Your task to perform on an android device: Open calendar and show me the fourth week of next month Image 0: 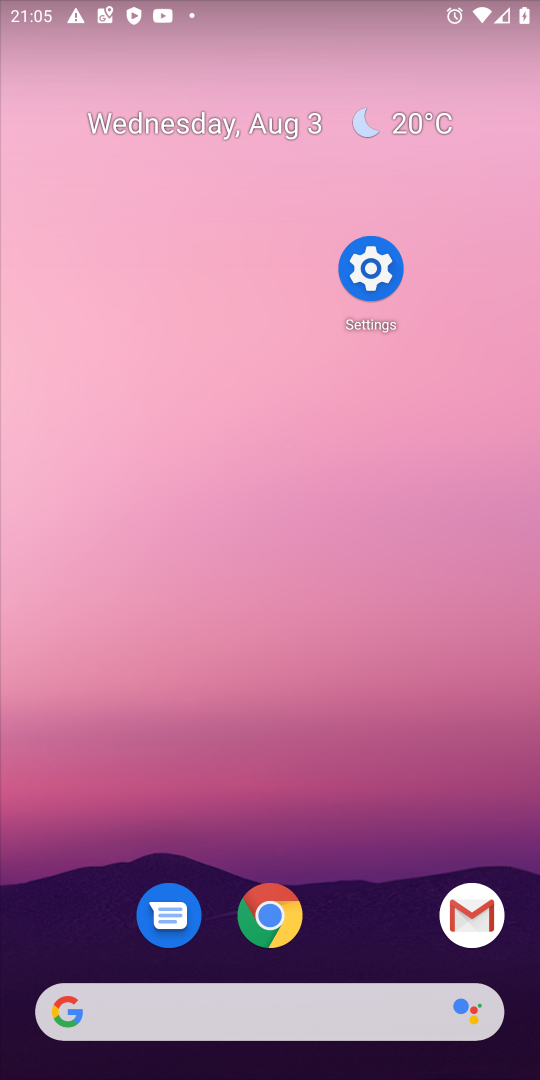
Step 0: press home button
Your task to perform on an android device: Open calendar and show me the fourth week of next month Image 1: 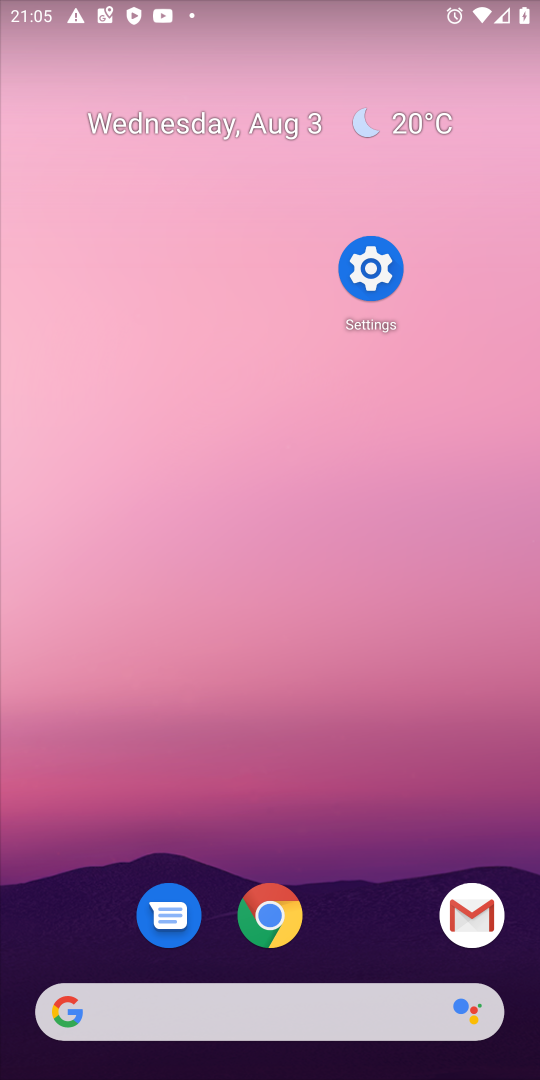
Step 1: drag from (339, 993) to (322, 387)
Your task to perform on an android device: Open calendar and show me the fourth week of next month Image 2: 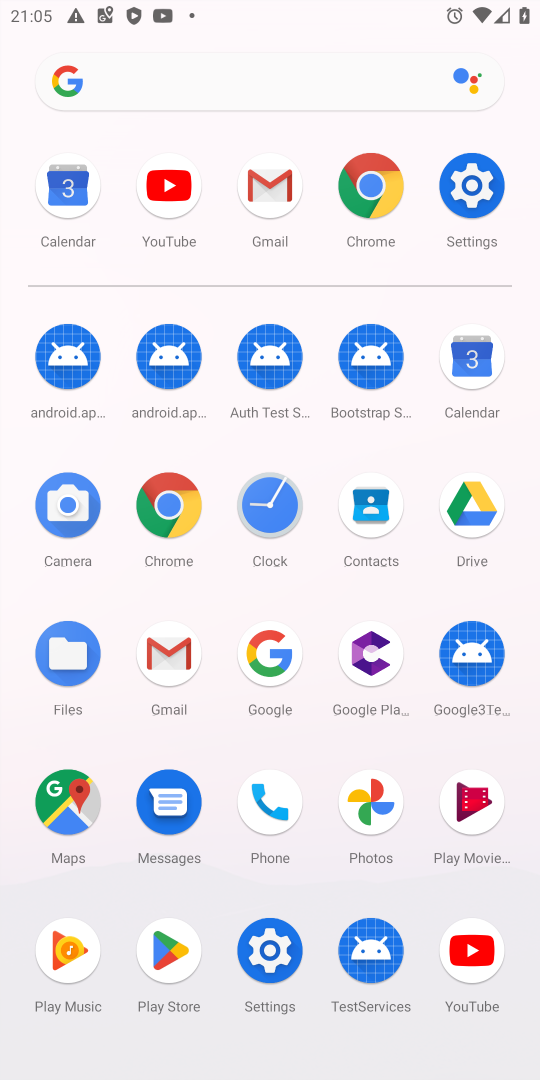
Step 2: click (473, 362)
Your task to perform on an android device: Open calendar and show me the fourth week of next month Image 3: 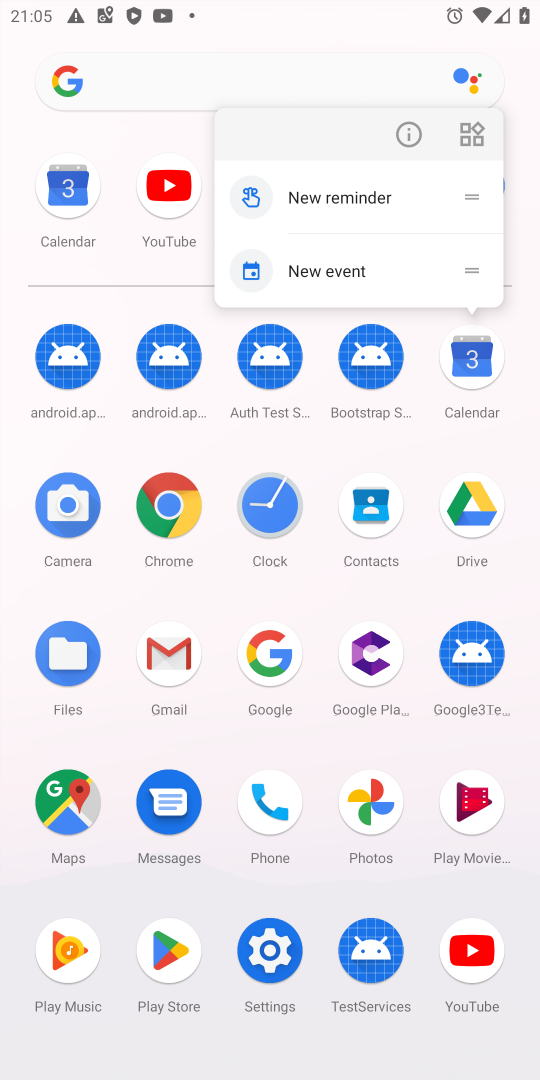
Step 3: click (461, 377)
Your task to perform on an android device: Open calendar and show me the fourth week of next month Image 4: 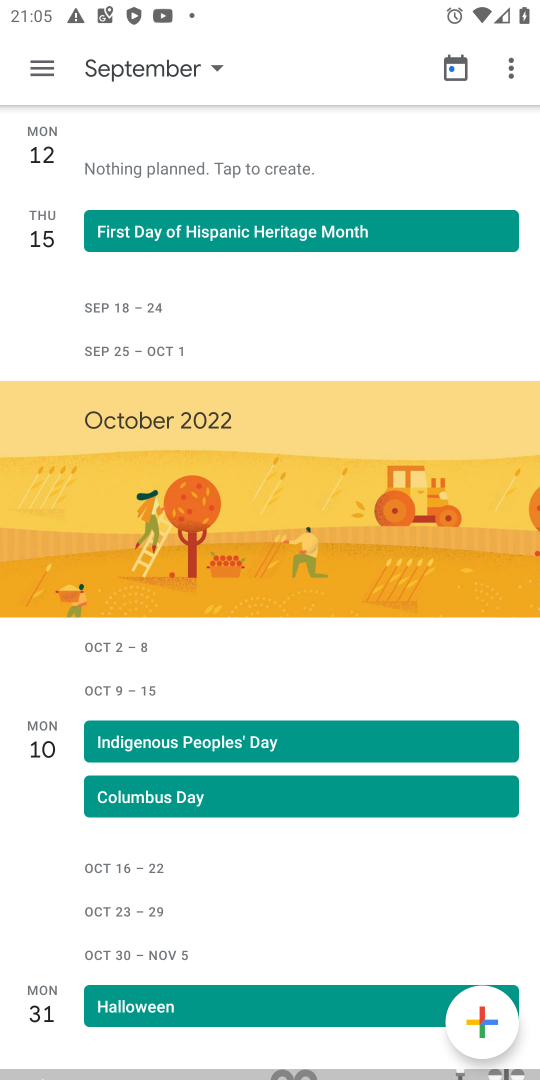
Step 4: click (44, 81)
Your task to perform on an android device: Open calendar and show me the fourth week of next month Image 5: 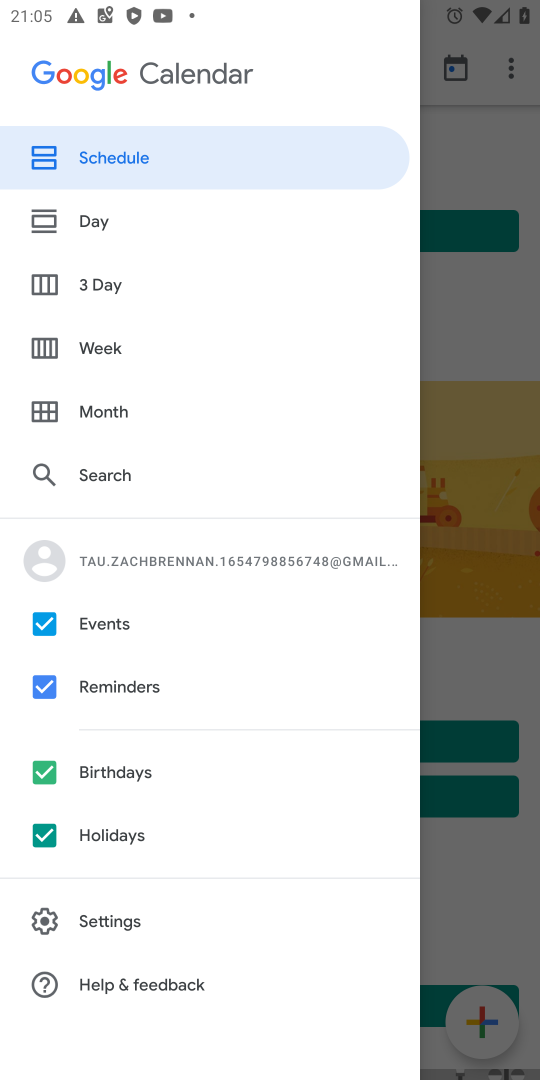
Step 5: click (125, 401)
Your task to perform on an android device: Open calendar and show me the fourth week of next month Image 6: 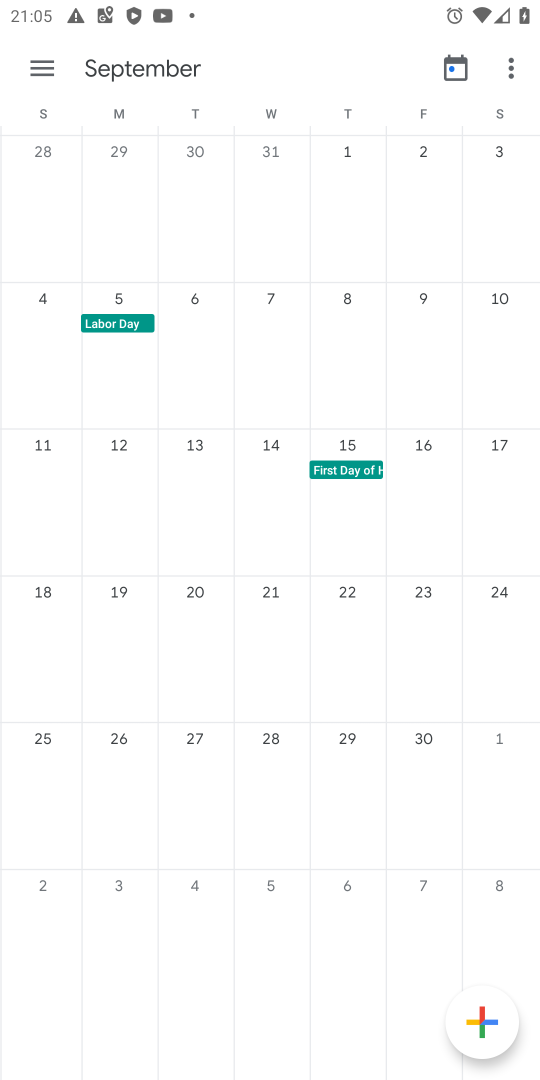
Step 6: click (110, 746)
Your task to perform on an android device: Open calendar and show me the fourth week of next month Image 7: 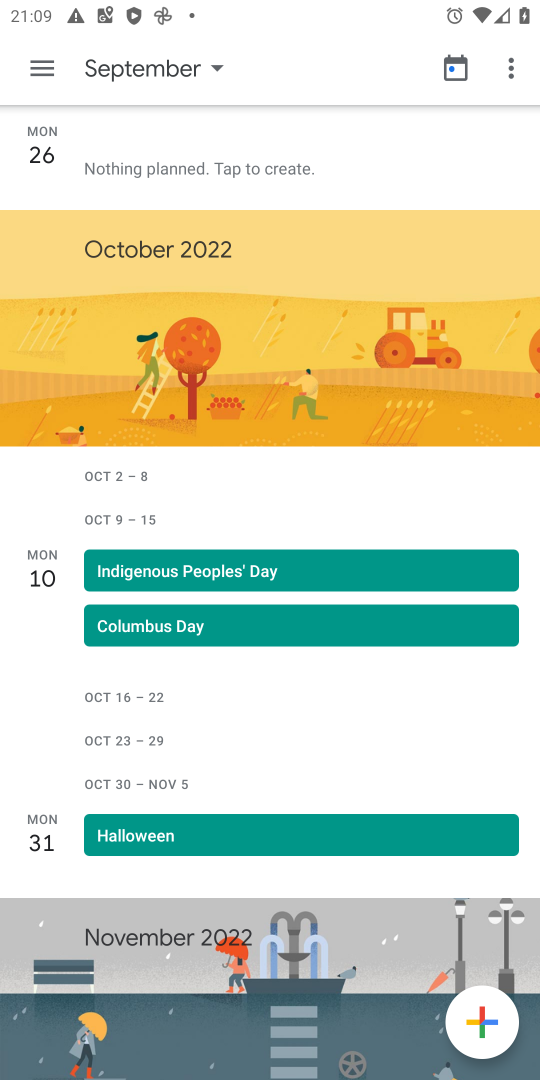
Step 7: task complete